Your task to perform on an android device: Add logitech g502 to the cart on costco Image 0: 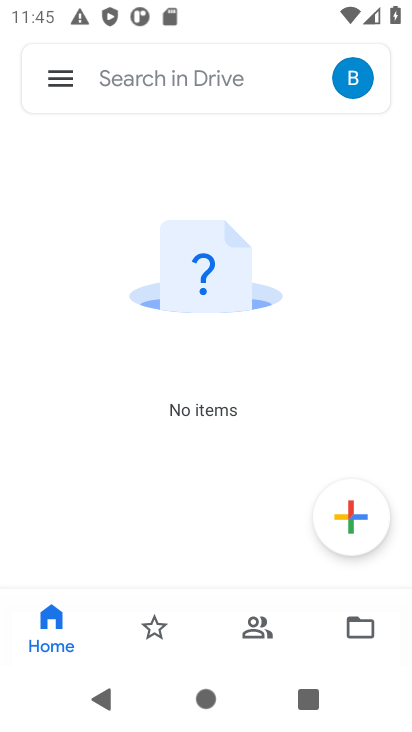
Step 0: press home button
Your task to perform on an android device: Add logitech g502 to the cart on costco Image 1: 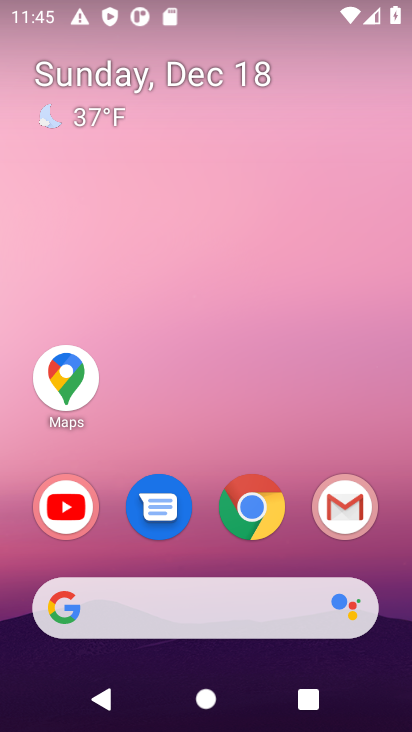
Step 1: click (253, 514)
Your task to perform on an android device: Add logitech g502 to the cart on costco Image 2: 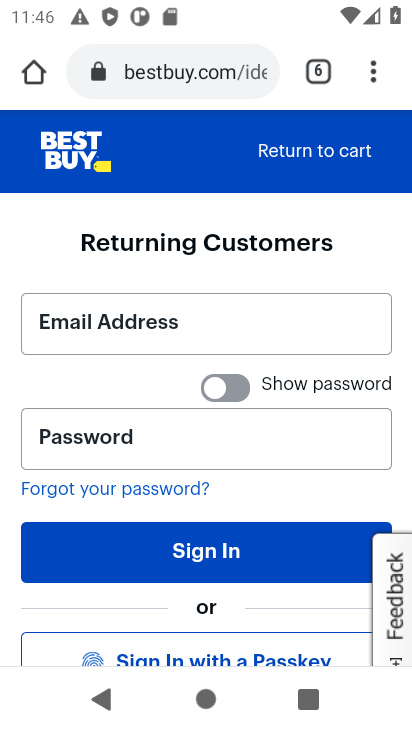
Step 2: click (157, 73)
Your task to perform on an android device: Add logitech g502 to the cart on costco Image 3: 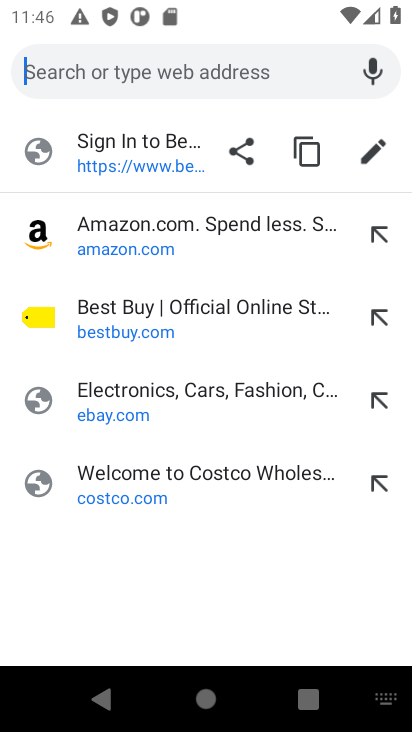
Step 3: click (104, 487)
Your task to perform on an android device: Add logitech g502 to the cart on costco Image 4: 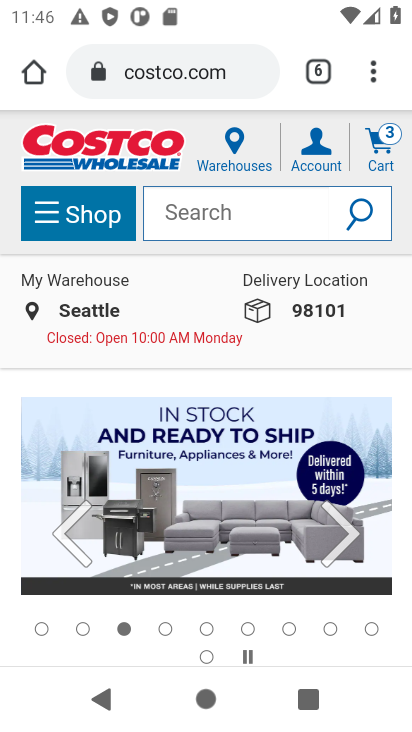
Step 4: click (180, 216)
Your task to perform on an android device: Add logitech g502 to the cart on costco Image 5: 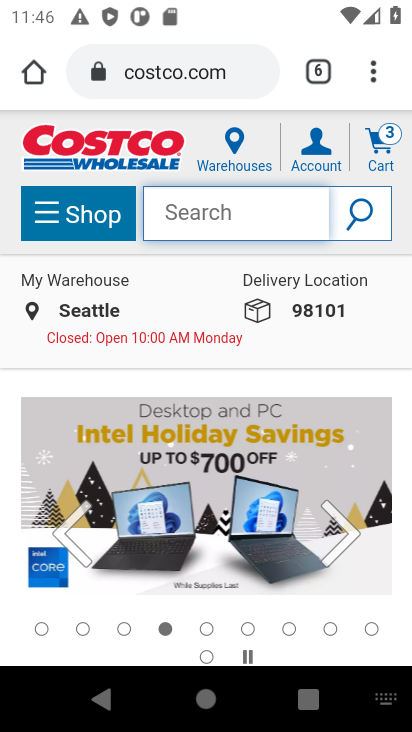
Step 5: type "logitech g502"
Your task to perform on an android device: Add logitech g502 to the cart on costco Image 6: 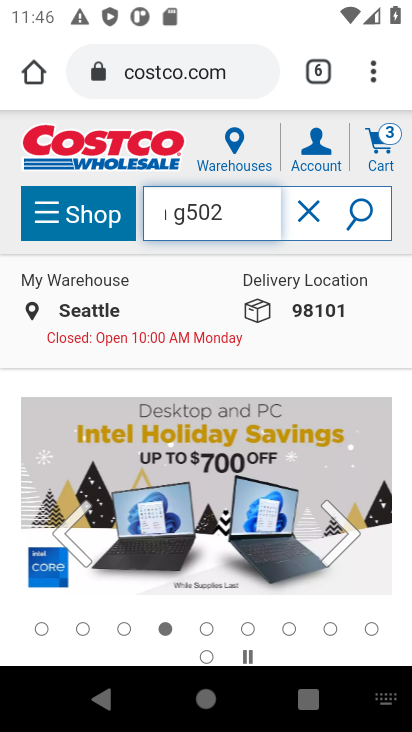
Step 6: click (355, 214)
Your task to perform on an android device: Add logitech g502 to the cart on costco Image 7: 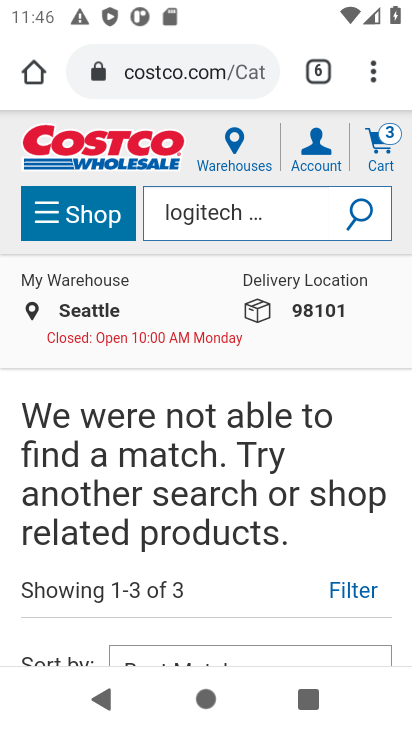
Step 7: task complete